Your task to perform on an android device: Show the shopping cart on walmart.com. Image 0: 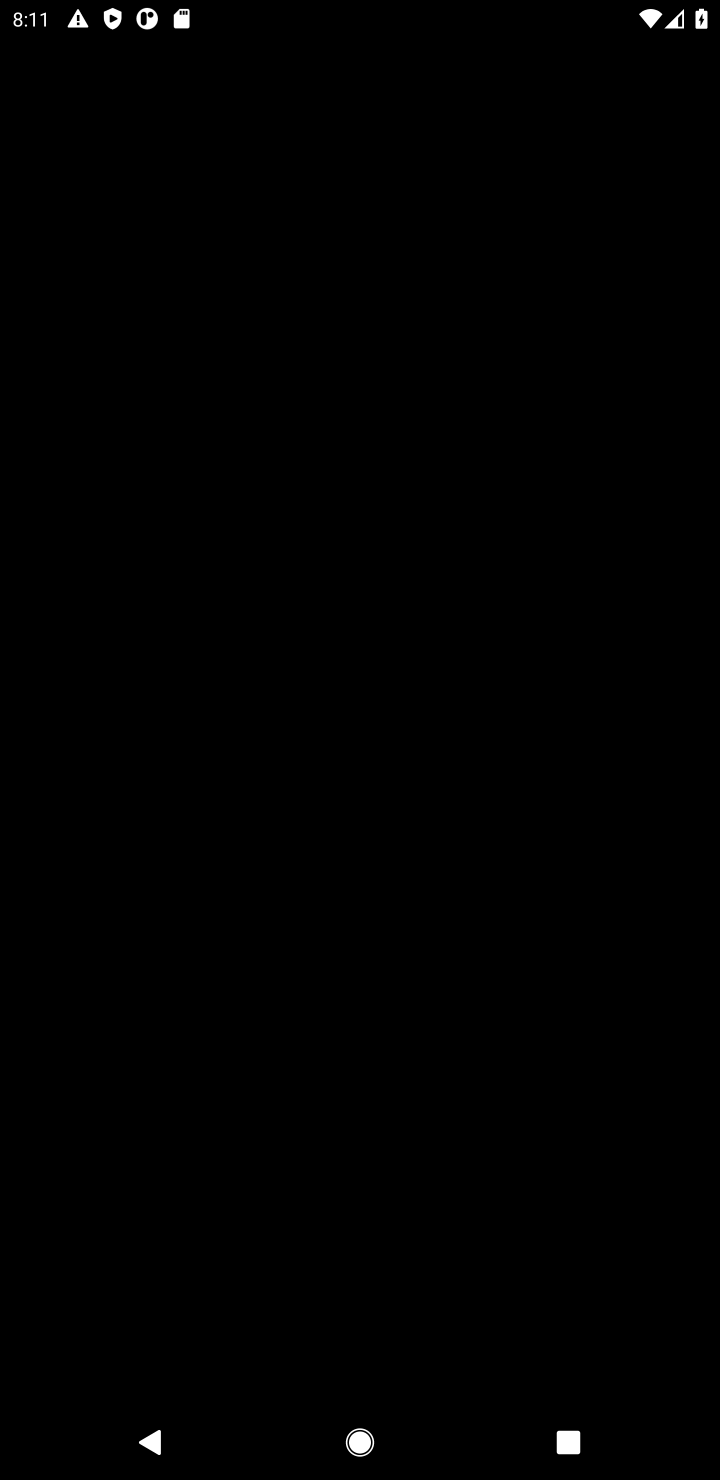
Step 0: press home button
Your task to perform on an android device: Show the shopping cart on walmart.com. Image 1: 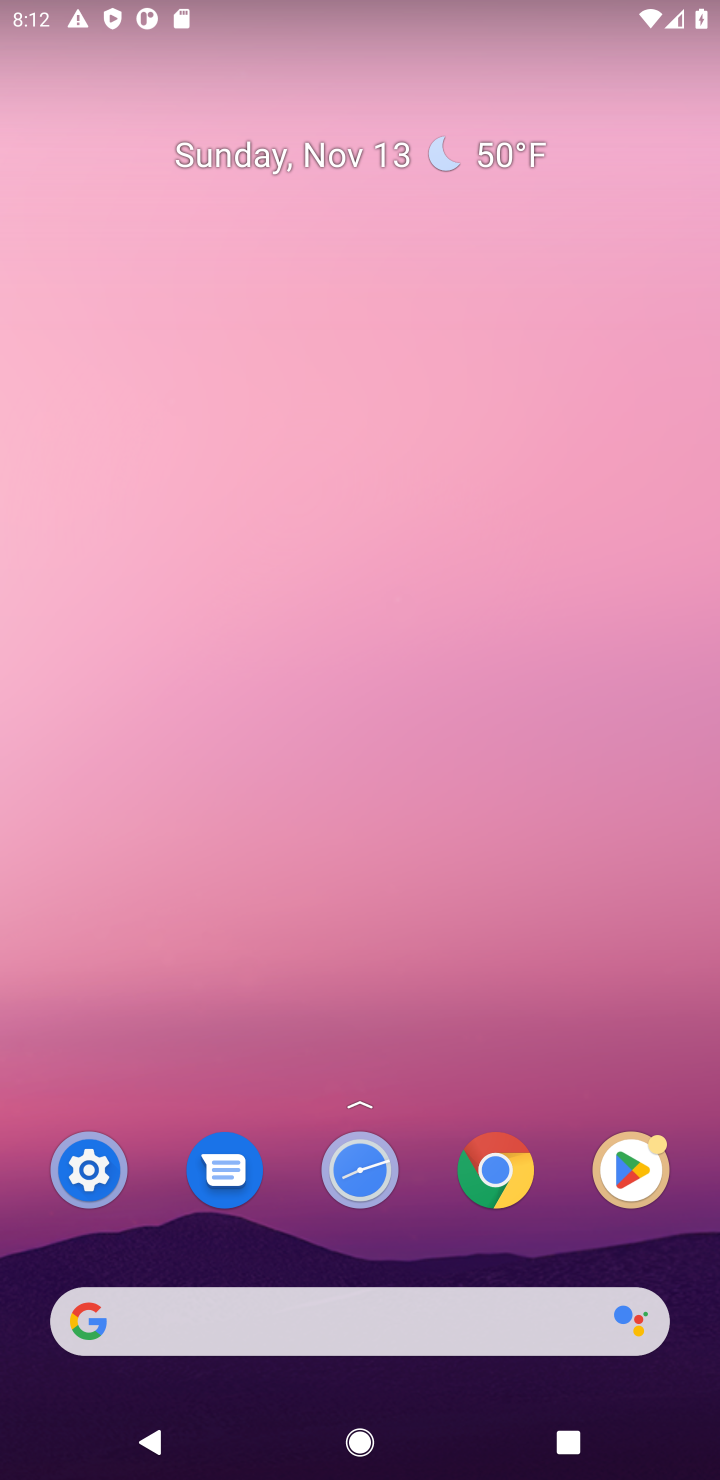
Step 1: click (272, 1326)
Your task to perform on an android device: Show the shopping cart on walmart.com. Image 2: 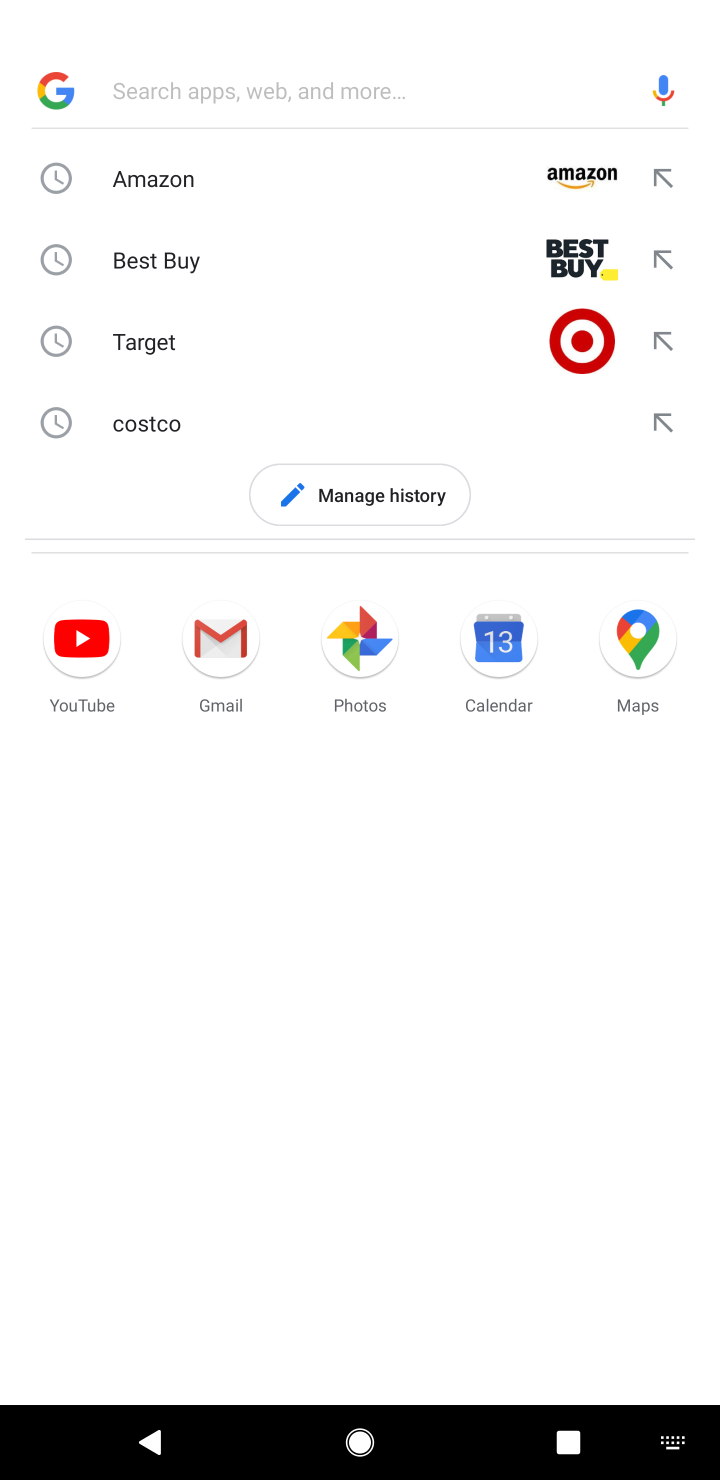
Step 2: type "walmart"
Your task to perform on an android device: Show the shopping cart on walmart.com. Image 3: 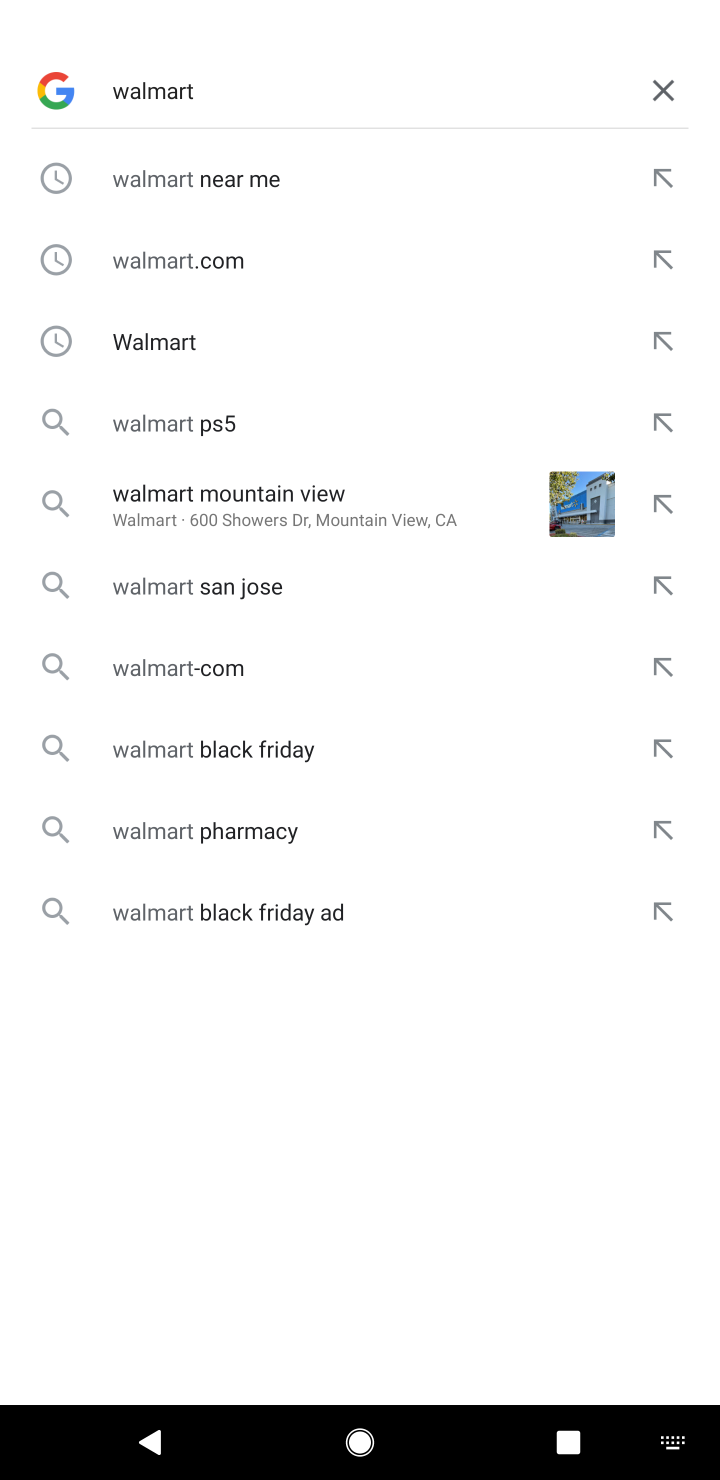
Step 3: click (160, 349)
Your task to perform on an android device: Show the shopping cart on walmart.com. Image 4: 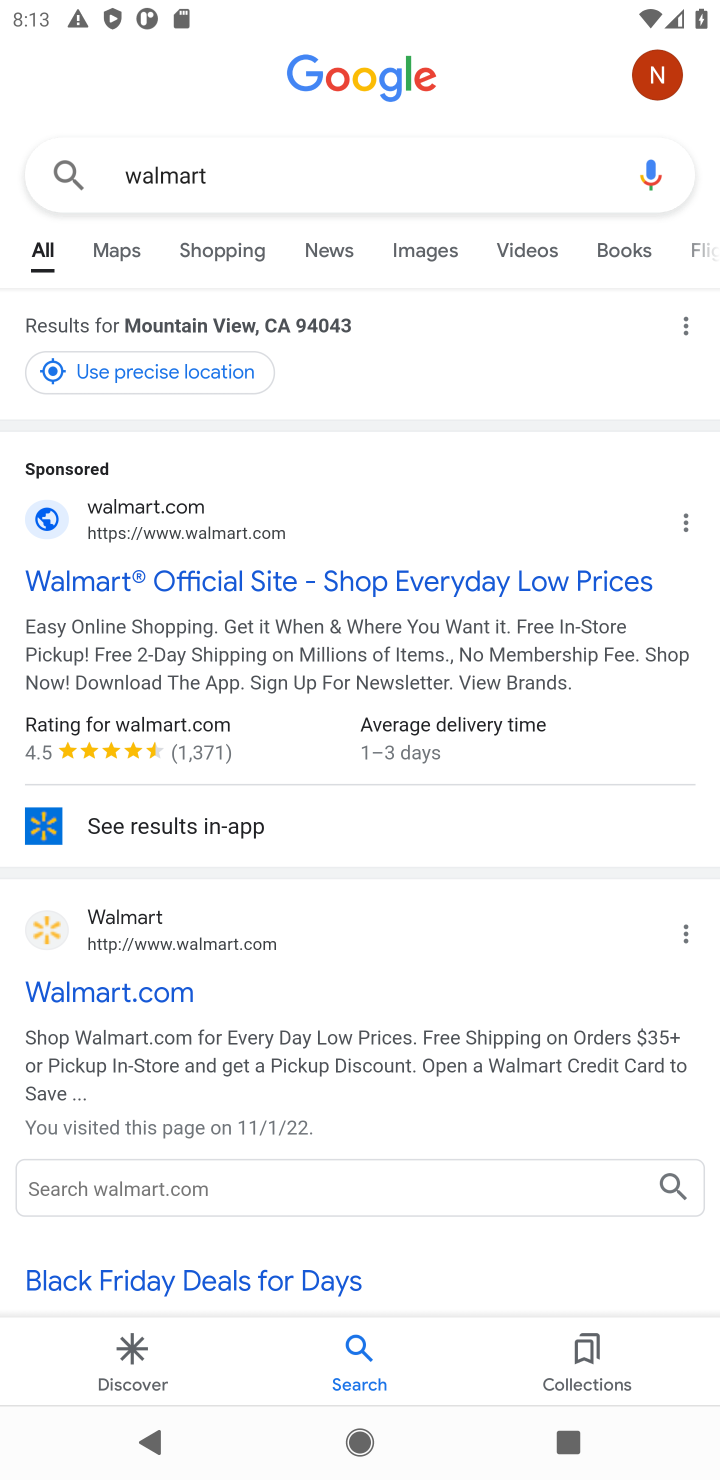
Step 4: click (237, 598)
Your task to perform on an android device: Show the shopping cart on walmart.com. Image 5: 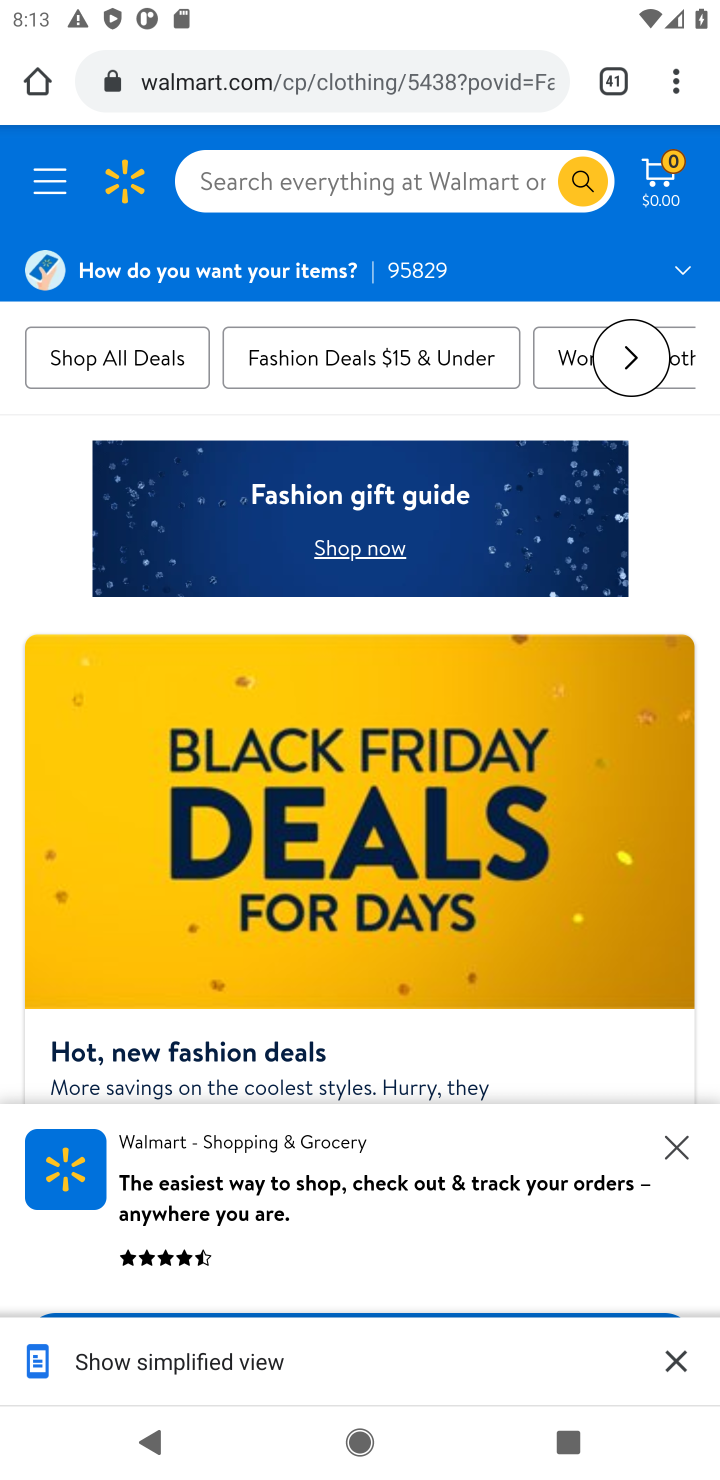
Step 5: task complete